Your task to perform on an android device: Open Youtube and go to "Your channel" Image 0: 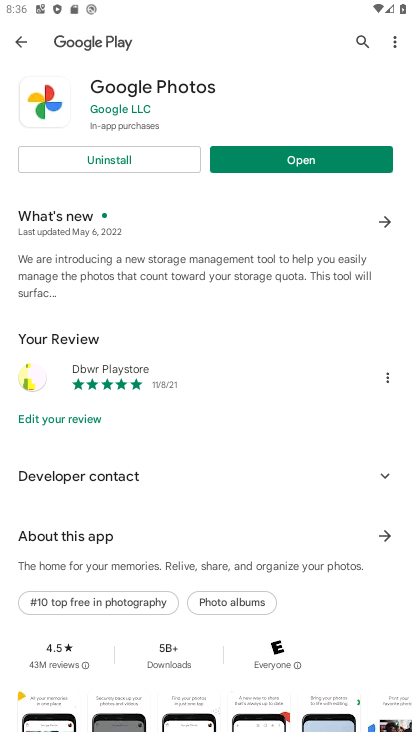
Step 0: press home button
Your task to perform on an android device: Open Youtube and go to "Your channel" Image 1: 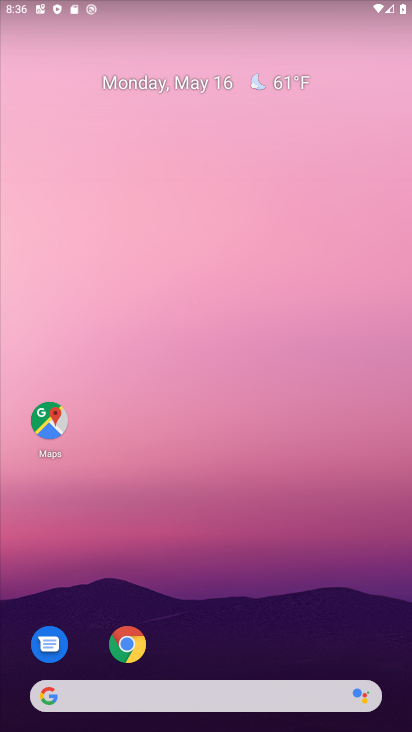
Step 1: drag from (217, 632) to (219, 178)
Your task to perform on an android device: Open Youtube and go to "Your channel" Image 2: 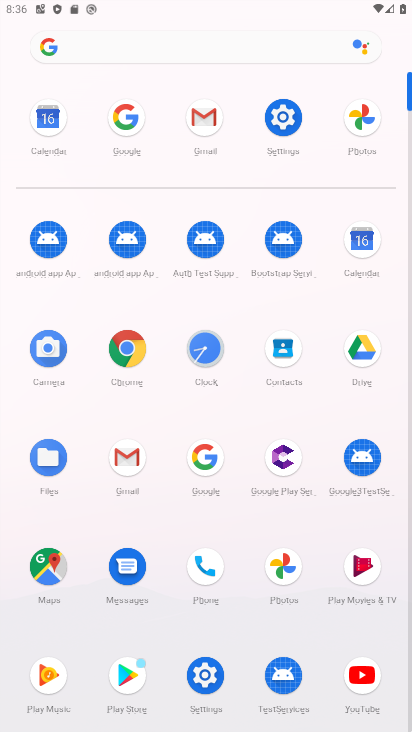
Step 2: click (360, 671)
Your task to perform on an android device: Open Youtube and go to "Your channel" Image 3: 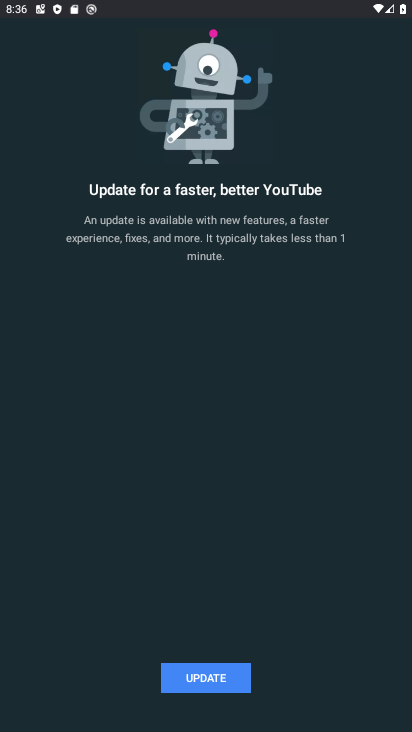
Step 3: click (195, 679)
Your task to perform on an android device: Open Youtube and go to "Your channel" Image 4: 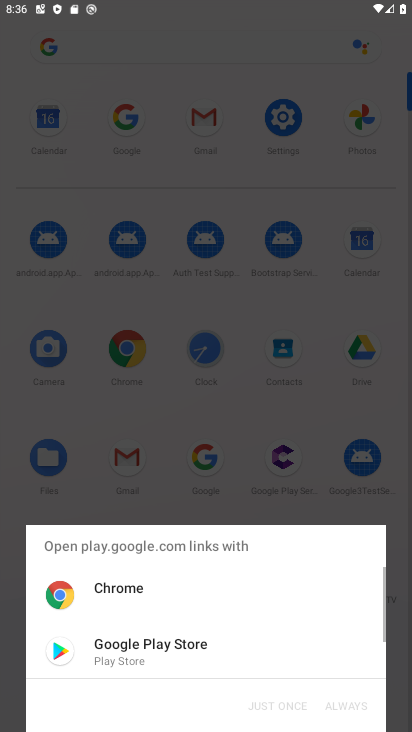
Step 4: click (119, 645)
Your task to perform on an android device: Open Youtube and go to "Your channel" Image 5: 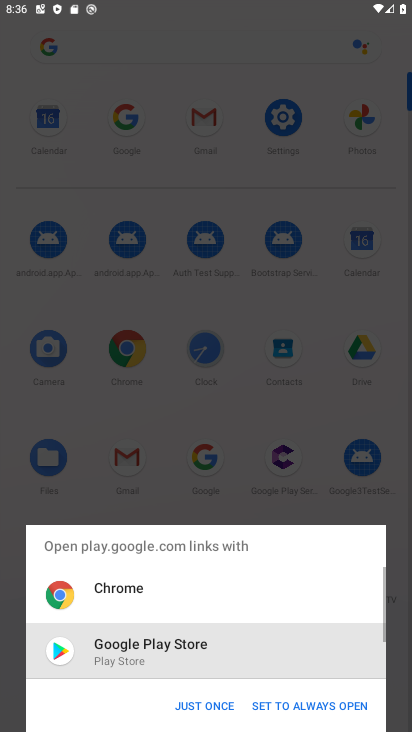
Step 5: click (203, 700)
Your task to perform on an android device: Open Youtube and go to "Your channel" Image 6: 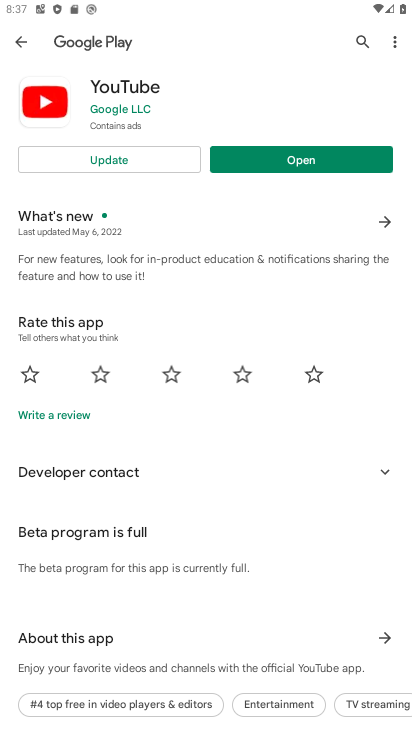
Step 6: click (110, 163)
Your task to perform on an android device: Open Youtube and go to "Your channel" Image 7: 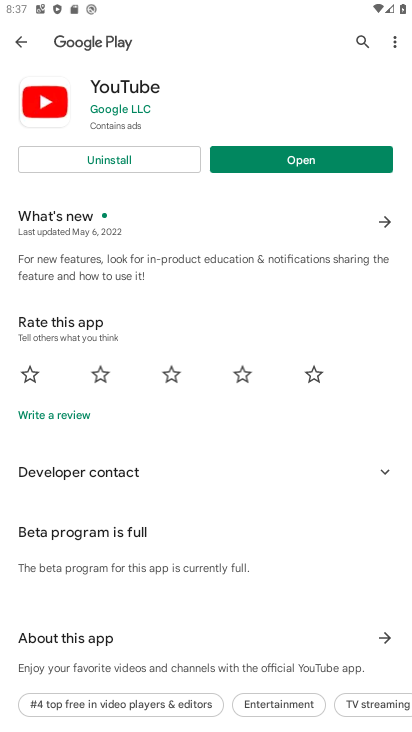
Step 7: click (286, 162)
Your task to perform on an android device: Open Youtube and go to "Your channel" Image 8: 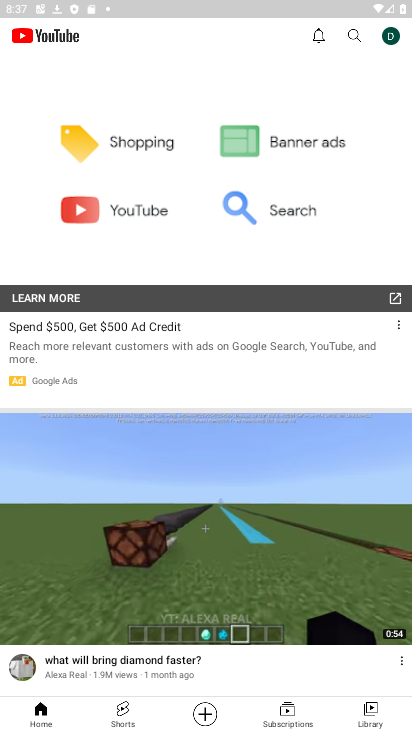
Step 8: click (388, 36)
Your task to perform on an android device: Open Youtube and go to "Your channel" Image 9: 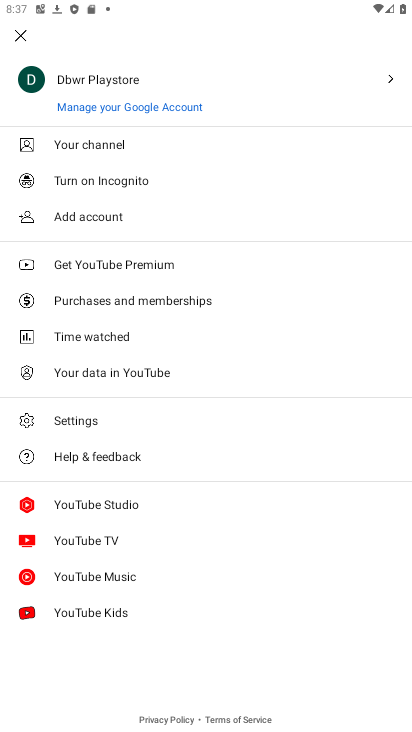
Step 9: click (93, 141)
Your task to perform on an android device: Open Youtube and go to "Your channel" Image 10: 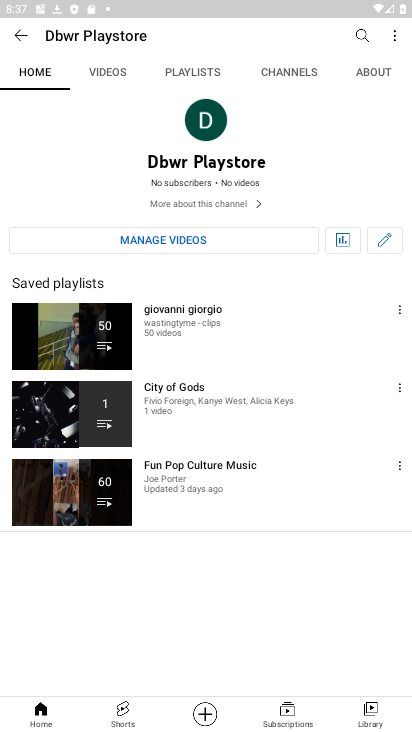
Step 10: task complete